Your task to perform on an android device: Open privacy settings Image 0: 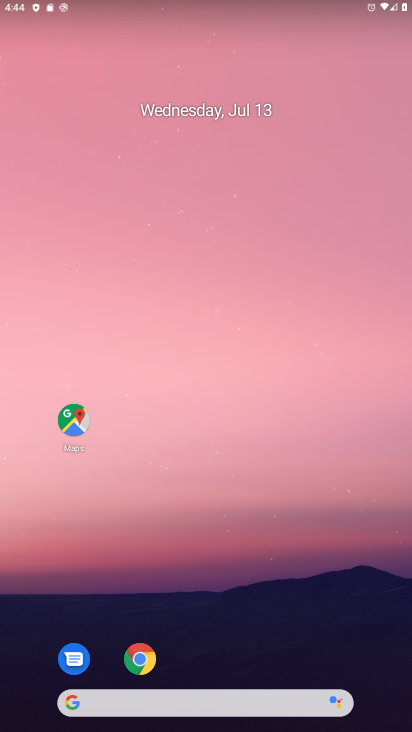
Step 0: drag from (362, 600) to (223, 109)
Your task to perform on an android device: Open privacy settings Image 1: 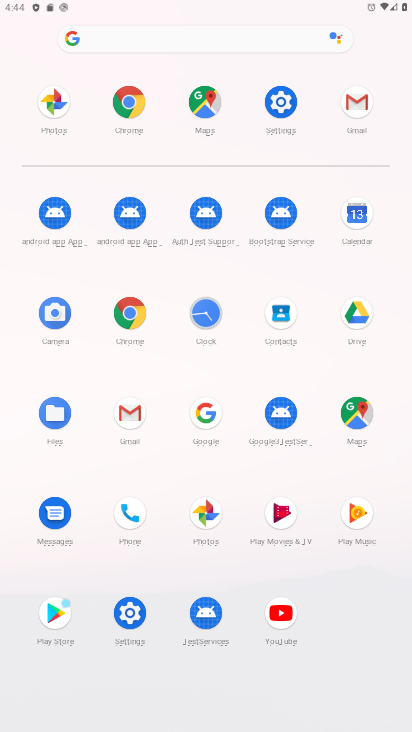
Step 1: click (282, 104)
Your task to perform on an android device: Open privacy settings Image 2: 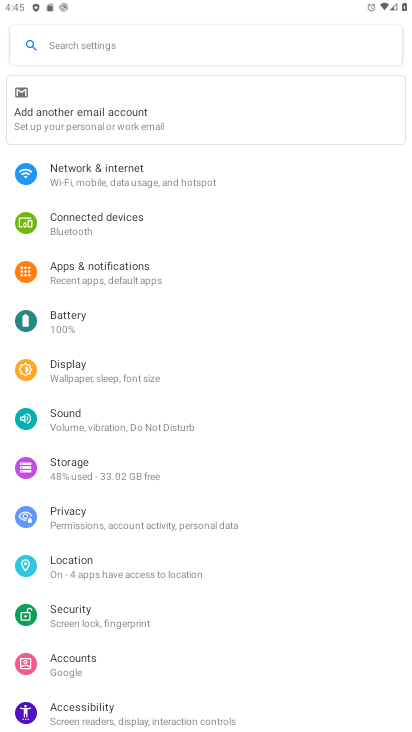
Step 2: click (147, 518)
Your task to perform on an android device: Open privacy settings Image 3: 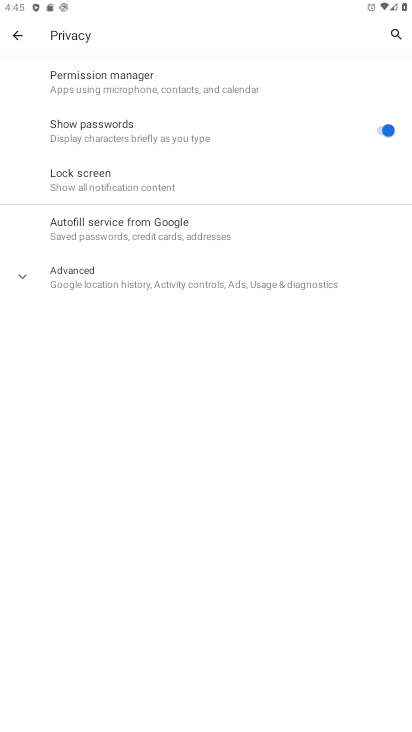
Step 3: task complete